Your task to perform on an android device: Open Yahoo.com Image 0: 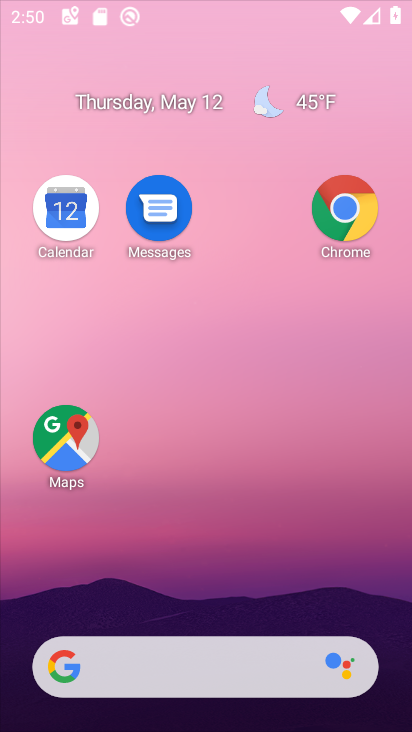
Step 0: click (248, 122)
Your task to perform on an android device: Open Yahoo.com Image 1: 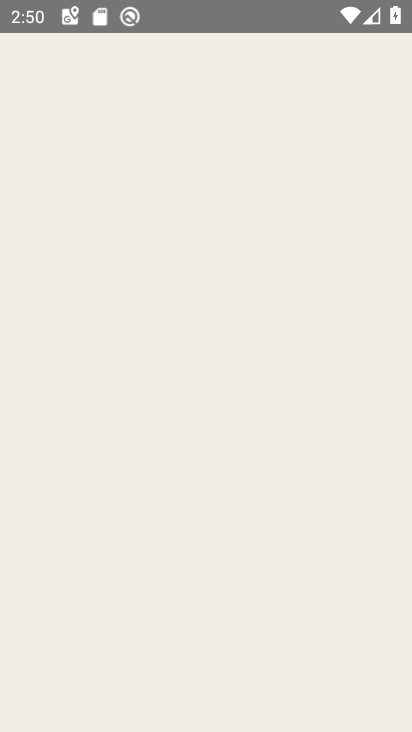
Step 1: drag from (227, 590) to (226, 148)
Your task to perform on an android device: Open Yahoo.com Image 2: 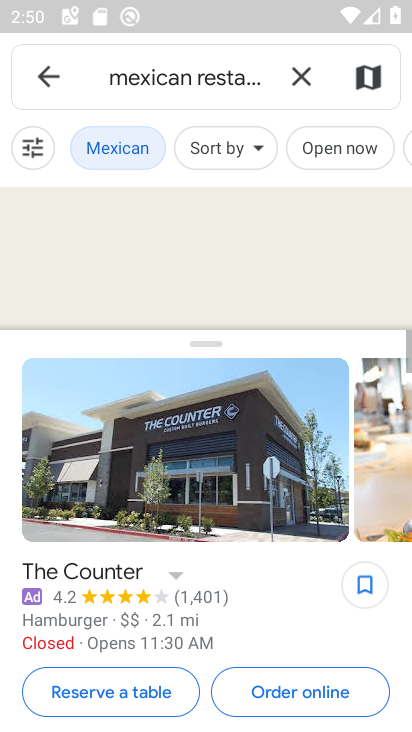
Step 2: press home button
Your task to perform on an android device: Open Yahoo.com Image 3: 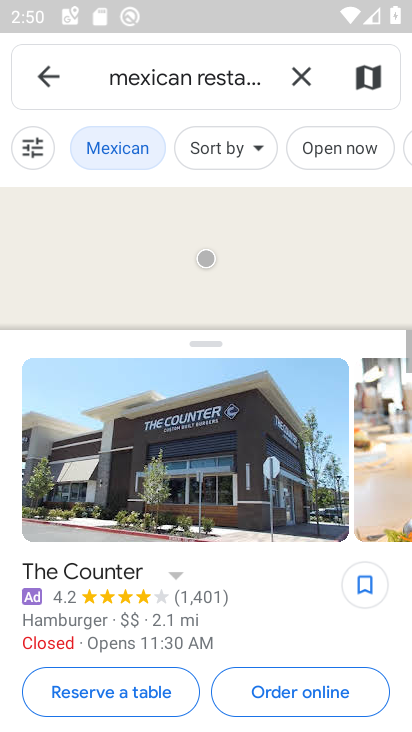
Step 3: press home button
Your task to perform on an android device: Open Yahoo.com Image 4: 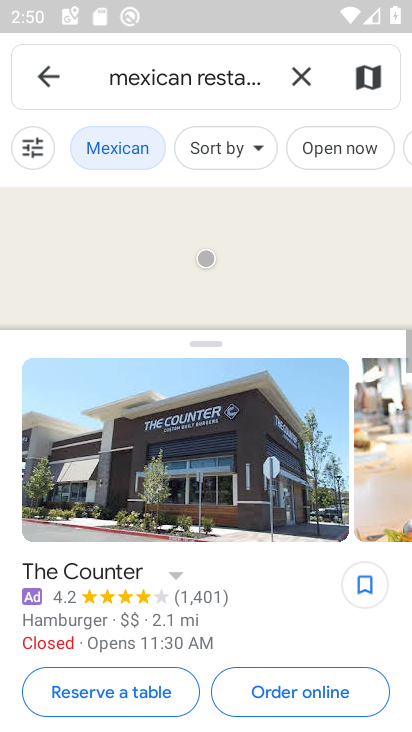
Step 4: click (285, 59)
Your task to perform on an android device: Open Yahoo.com Image 5: 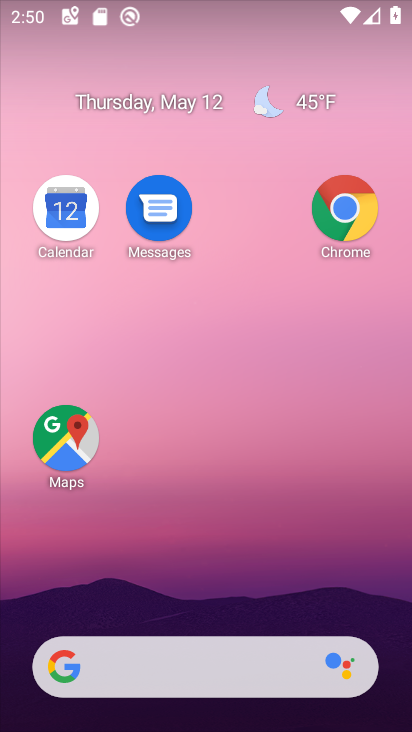
Step 5: drag from (256, 483) to (248, 137)
Your task to perform on an android device: Open Yahoo.com Image 6: 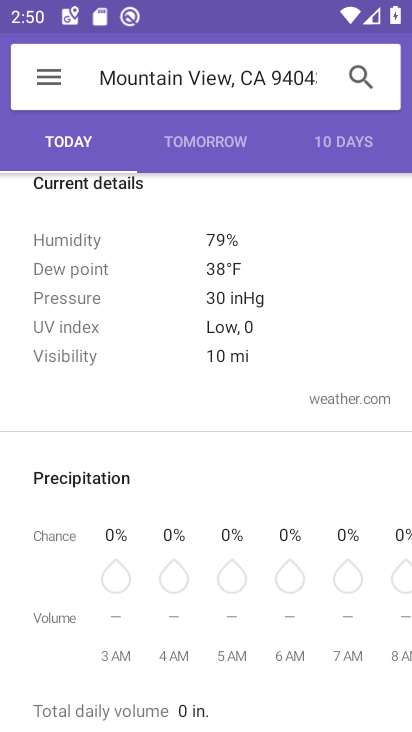
Step 6: press home button
Your task to perform on an android device: Open Yahoo.com Image 7: 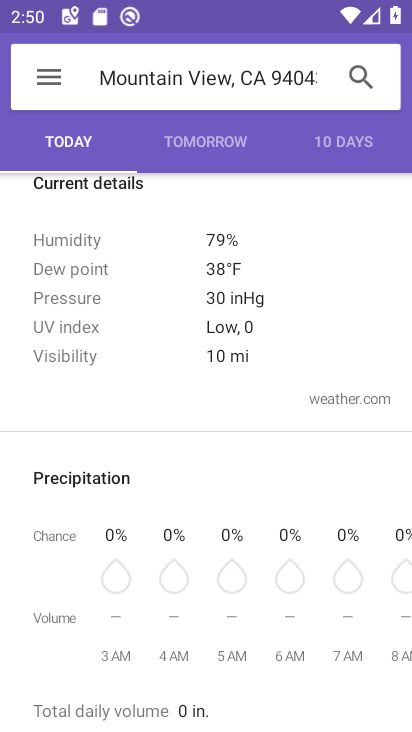
Step 7: press home button
Your task to perform on an android device: Open Yahoo.com Image 8: 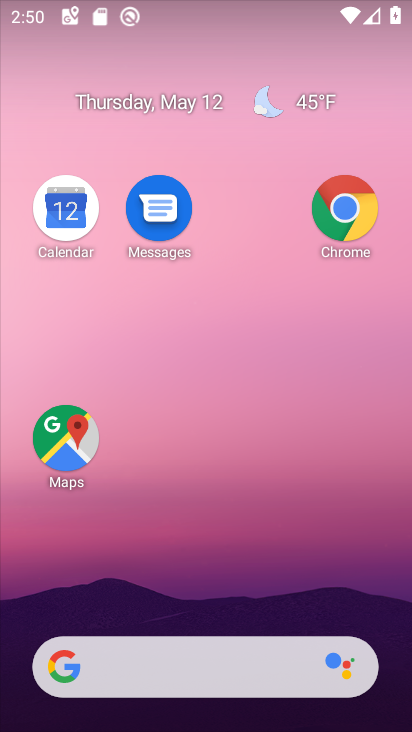
Step 8: drag from (200, 596) to (253, 223)
Your task to perform on an android device: Open Yahoo.com Image 9: 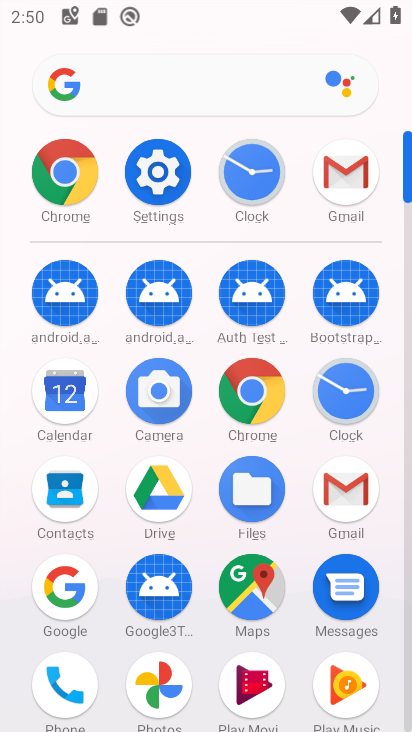
Step 9: click (207, 99)
Your task to perform on an android device: Open Yahoo.com Image 10: 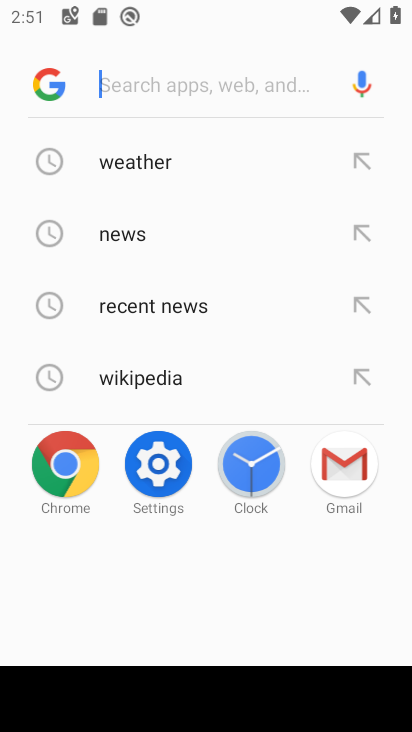
Step 10: type "yahoo"
Your task to perform on an android device: Open Yahoo.com Image 11: 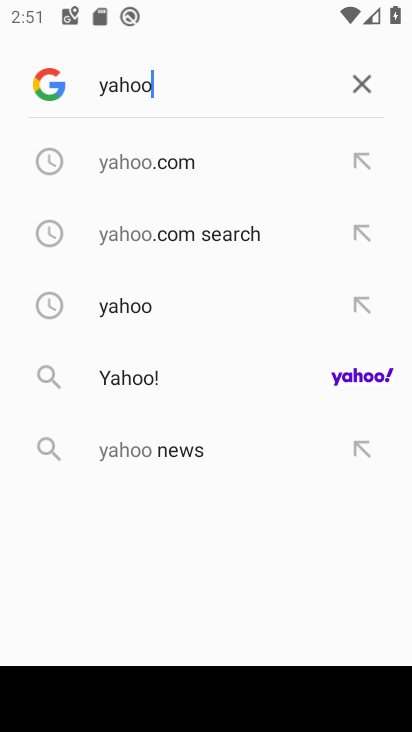
Step 11: click (191, 169)
Your task to perform on an android device: Open Yahoo.com Image 12: 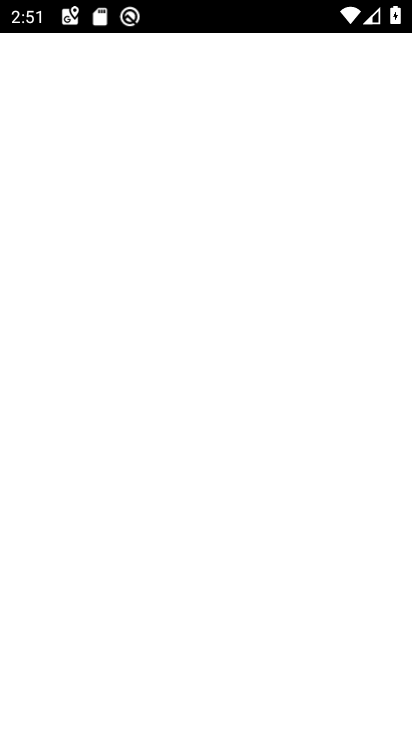
Step 12: task complete